Your task to perform on an android device: uninstall "Google Find My Device" Image 0: 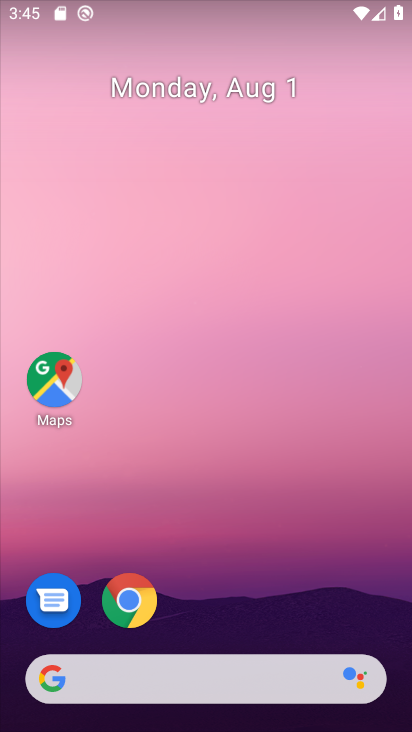
Step 0: drag from (283, 543) to (280, 42)
Your task to perform on an android device: uninstall "Google Find My Device" Image 1: 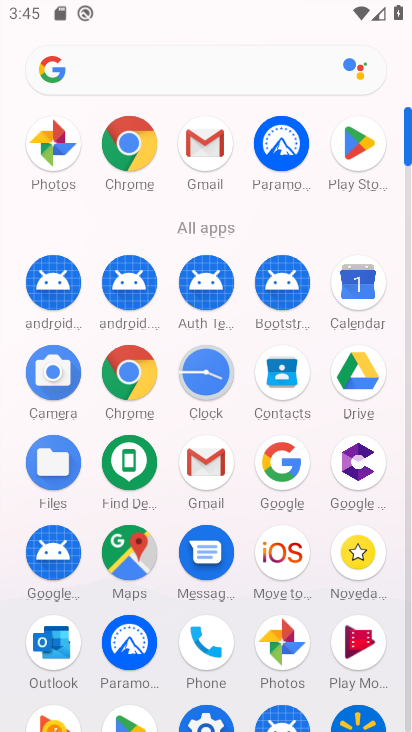
Step 1: click (359, 145)
Your task to perform on an android device: uninstall "Google Find My Device" Image 2: 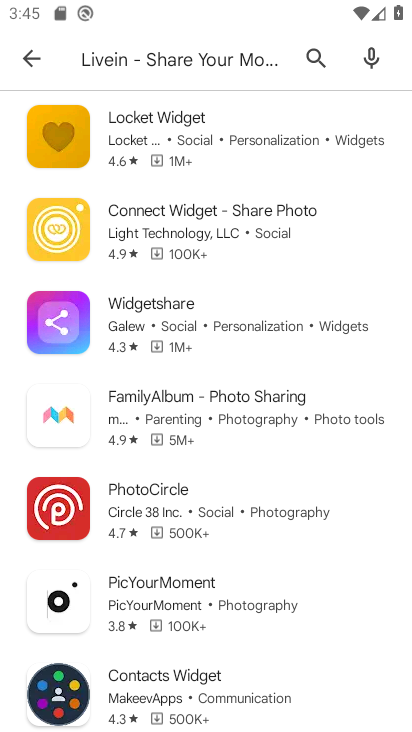
Step 2: click (249, 53)
Your task to perform on an android device: uninstall "Google Find My Device" Image 3: 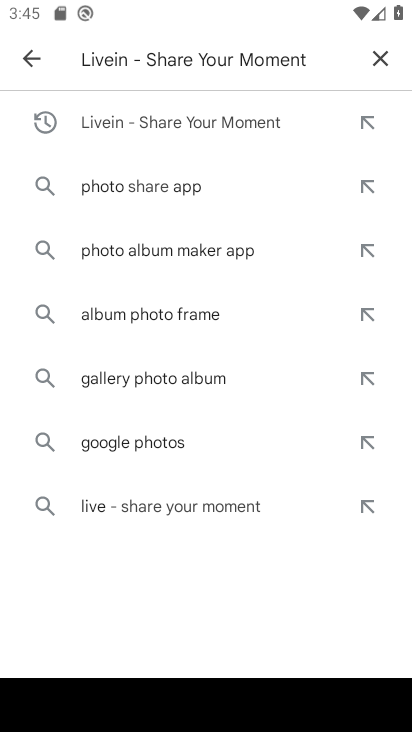
Step 3: click (377, 54)
Your task to perform on an android device: uninstall "Google Find My Device" Image 4: 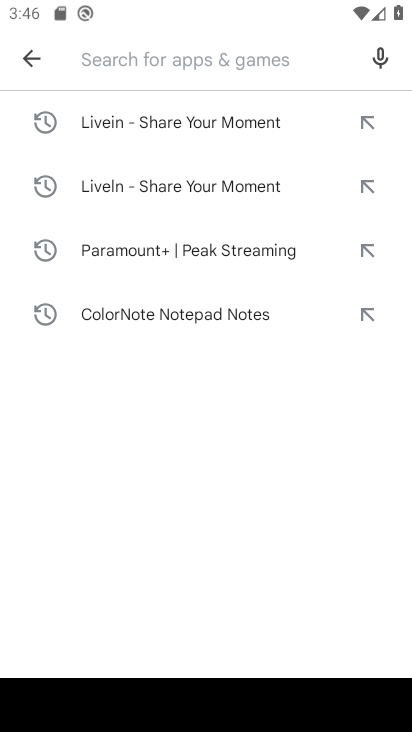
Step 4: type "Google Find My Device"
Your task to perform on an android device: uninstall "Google Find My Device" Image 5: 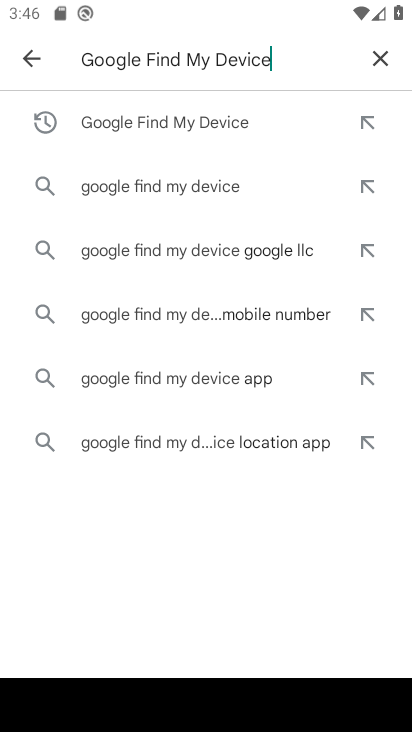
Step 5: press enter
Your task to perform on an android device: uninstall "Google Find My Device" Image 6: 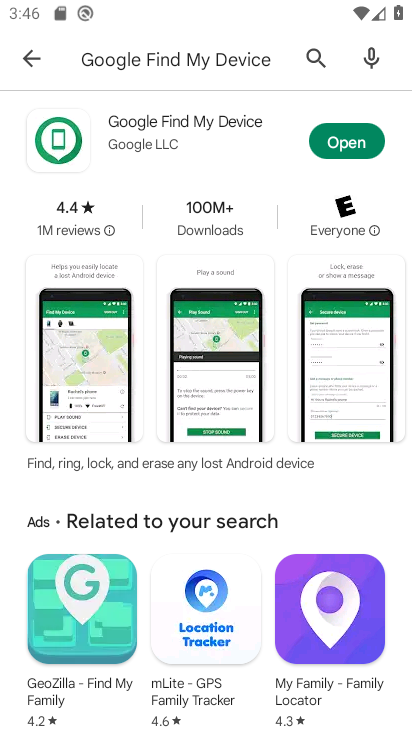
Step 6: click (233, 121)
Your task to perform on an android device: uninstall "Google Find My Device" Image 7: 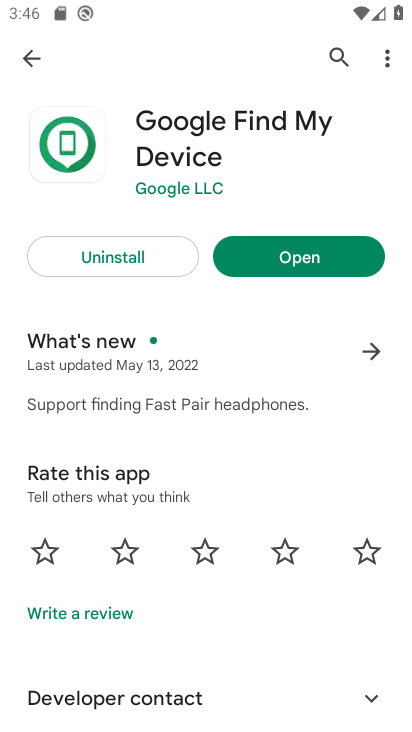
Step 7: click (158, 268)
Your task to perform on an android device: uninstall "Google Find My Device" Image 8: 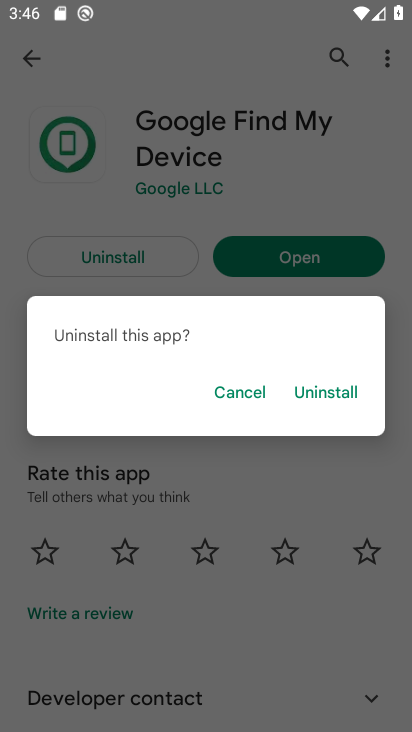
Step 8: click (324, 404)
Your task to perform on an android device: uninstall "Google Find My Device" Image 9: 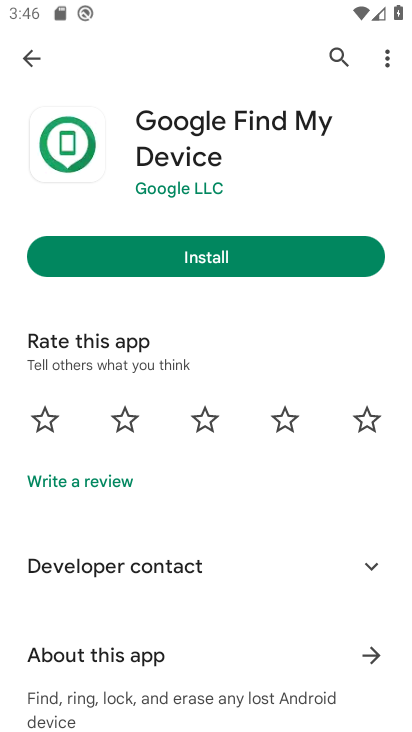
Step 9: task complete